Your task to perform on an android device: add a contact in the contacts app Image 0: 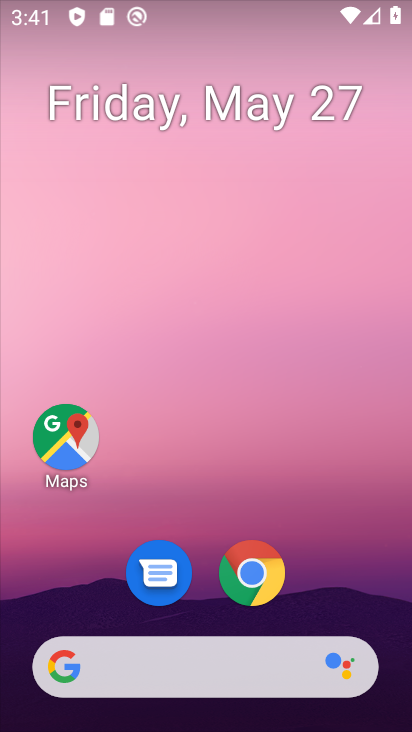
Step 0: drag from (358, 599) to (371, 129)
Your task to perform on an android device: add a contact in the contacts app Image 1: 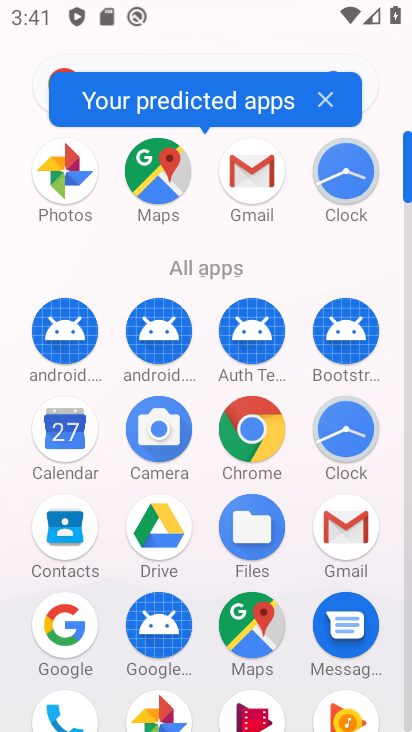
Step 1: click (80, 546)
Your task to perform on an android device: add a contact in the contacts app Image 2: 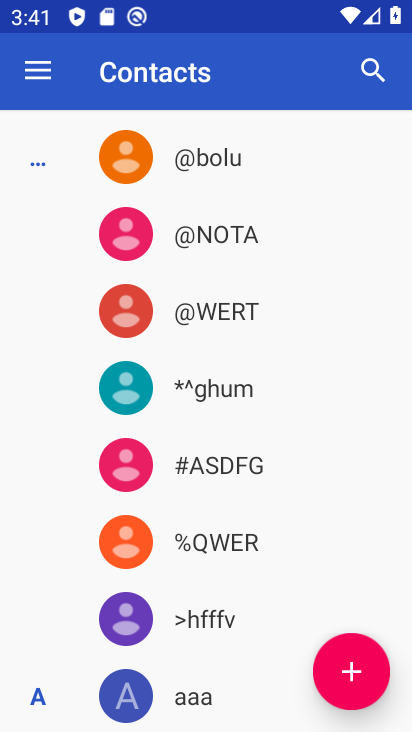
Step 2: click (345, 664)
Your task to perform on an android device: add a contact in the contacts app Image 3: 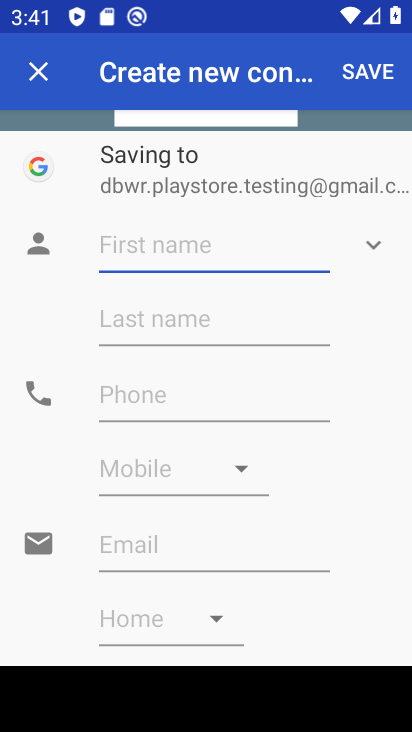
Step 3: type "llllllllllllllll"
Your task to perform on an android device: add a contact in the contacts app Image 4: 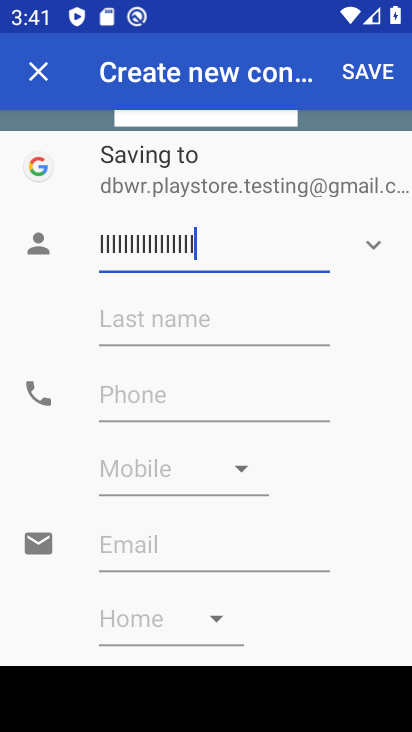
Step 4: click (270, 382)
Your task to perform on an android device: add a contact in the contacts app Image 5: 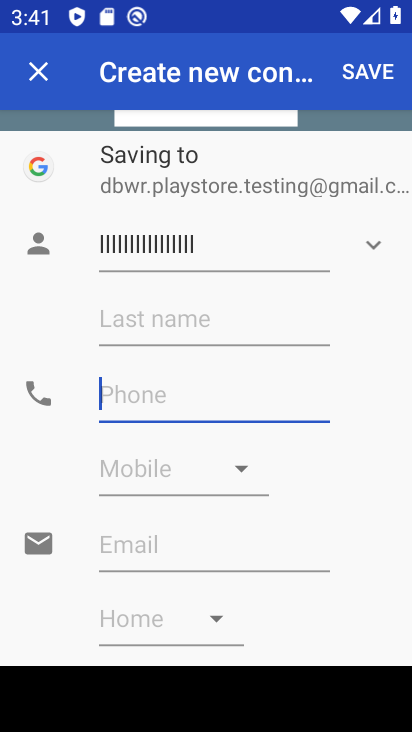
Step 5: type "566778990000"
Your task to perform on an android device: add a contact in the contacts app Image 6: 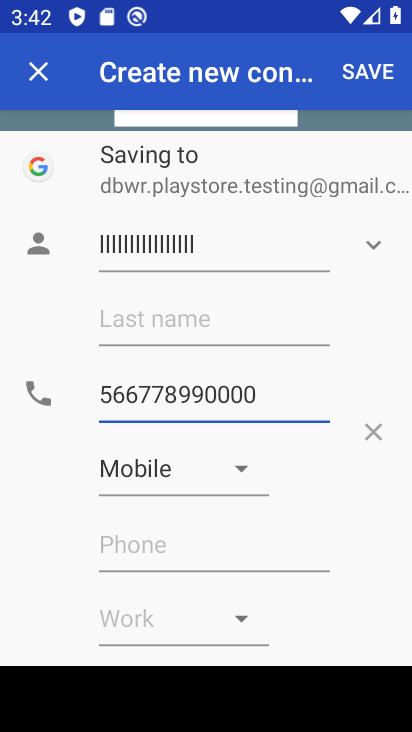
Step 6: click (365, 83)
Your task to perform on an android device: add a contact in the contacts app Image 7: 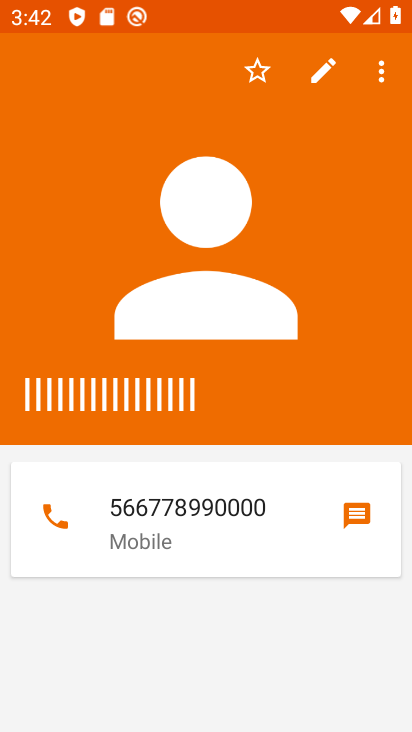
Step 7: task complete